Your task to perform on an android device: toggle airplane mode Image 0: 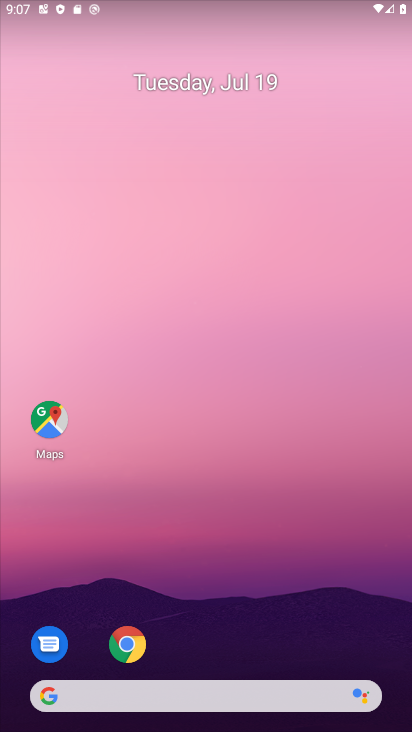
Step 0: drag from (213, 673) to (180, 53)
Your task to perform on an android device: toggle airplane mode Image 1: 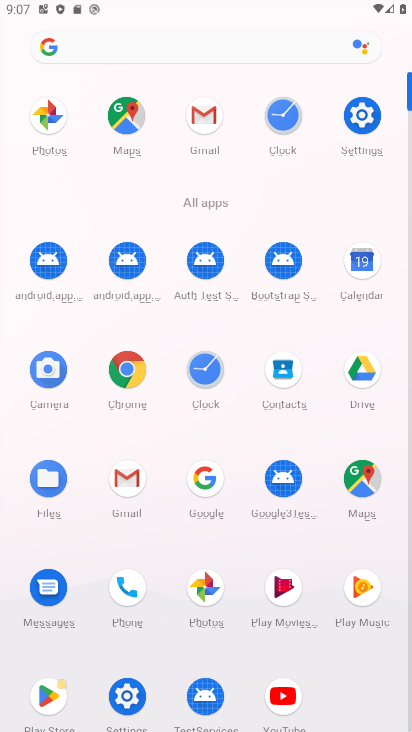
Step 1: click (378, 122)
Your task to perform on an android device: toggle airplane mode Image 2: 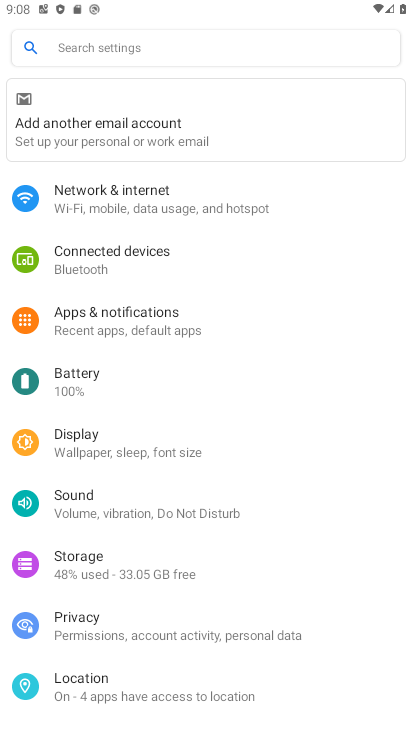
Step 2: click (171, 188)
Your task to perform on an android device: toggle airplane mode Image 3: 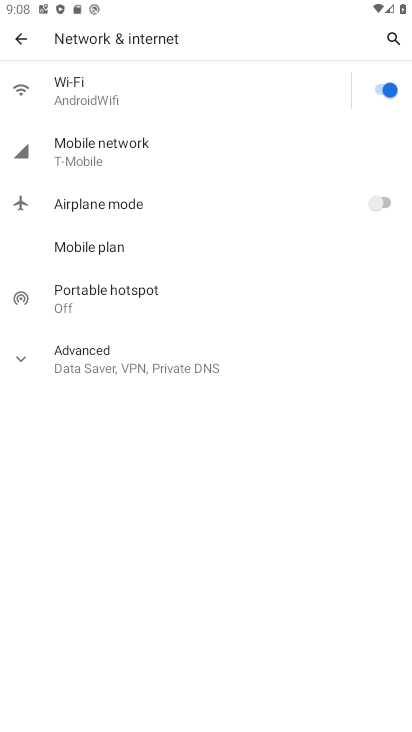
Step 3: click (383, 205)
Your task to perform on an android device: toggle airplane mode Image 4: 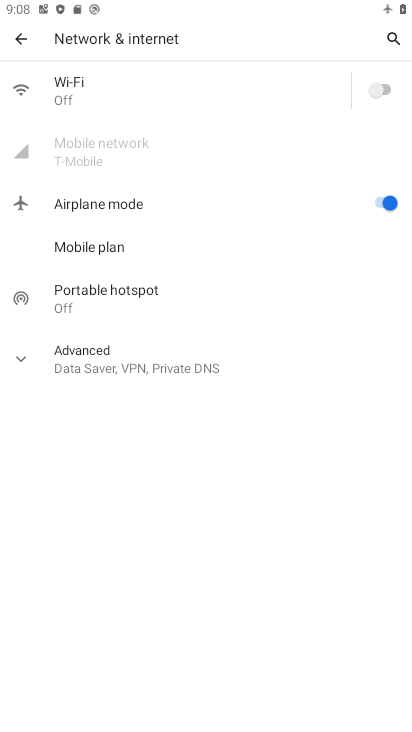
Step 4: task complete